Your task to perform on an android device: choose inbox layout in the gmail app Image 0: 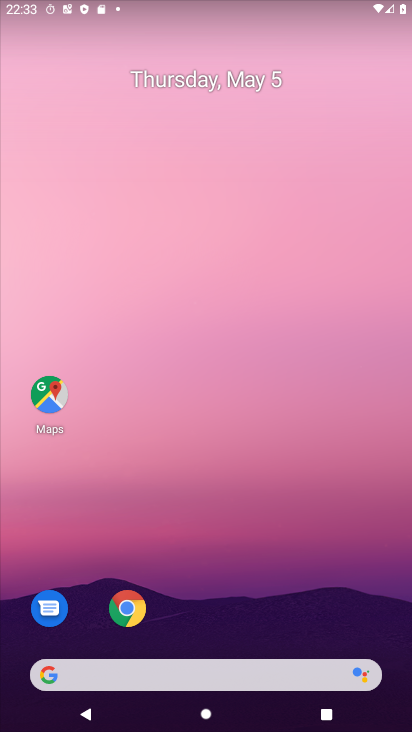
Step 0: drag from (388, 652) to (292, 13)
Your task to perform on an android device: choose inbox layout in the gmail app Image 1: 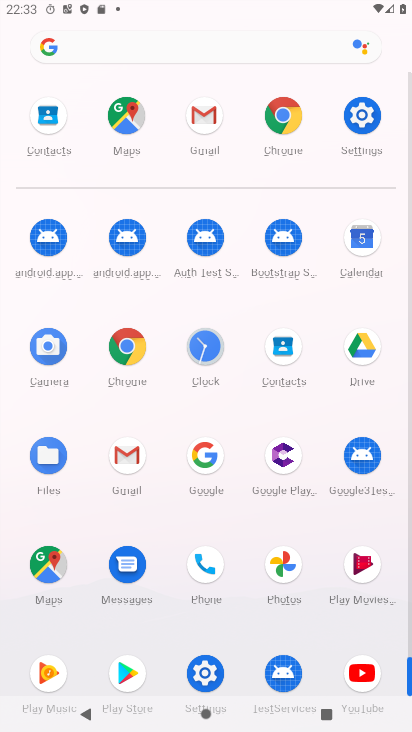
Step 1: click (118, 458)
Your task to perform on an android device: choose inbox layout in the gmail app Image 2: 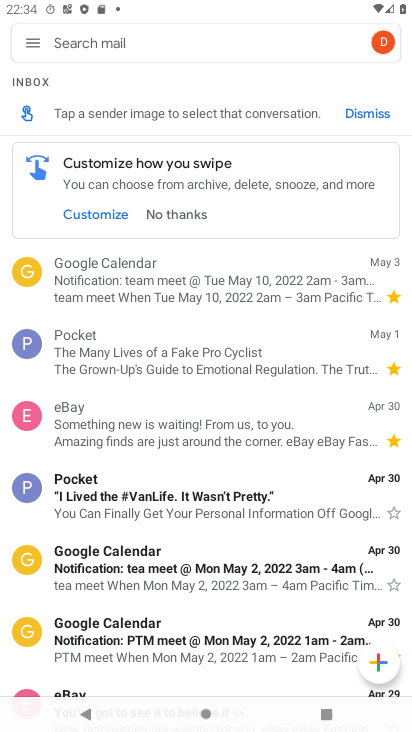
Step 2: click (28, 44)
Your task to perform on an android device: choose inbox layout in the gmail app Image 3: 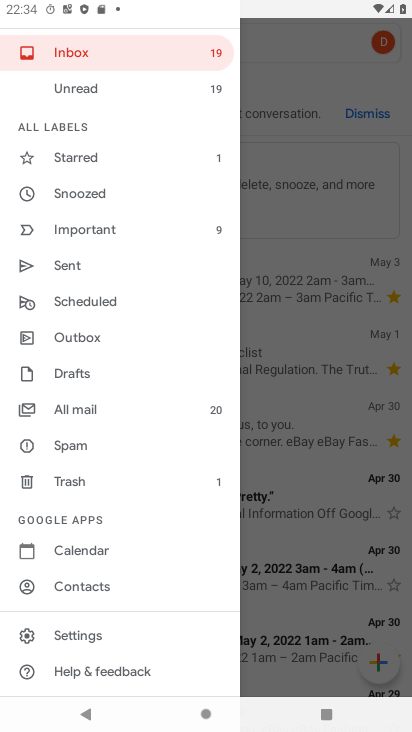
Step 3: click (93, 635)
Your task to perform on an android device: choose inbox layout in the gmail app Image 4: 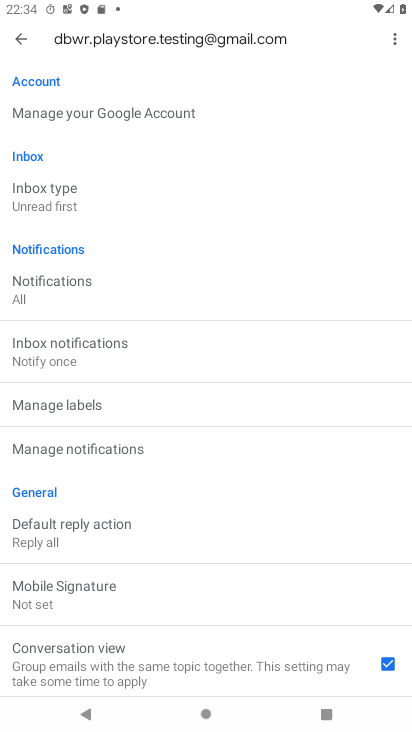
Step 4: click (66, 189)
Your task to perform on an android device: choose inbox layout in the gmail app Image 5: 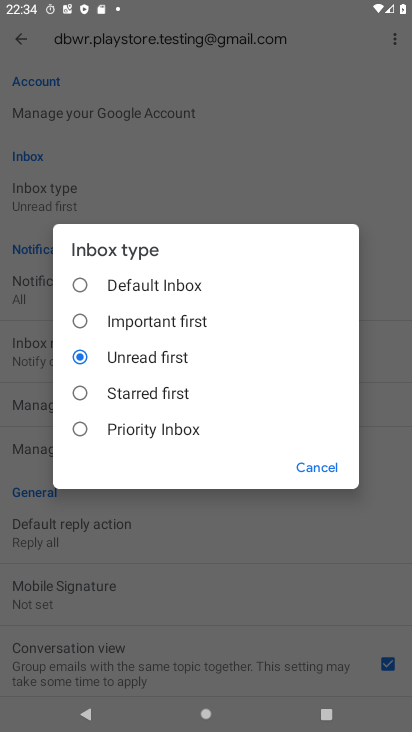
Step 5: click (114, 323)
Your task to perform on an android device: choose inbox layout in the gmail app Image 6: 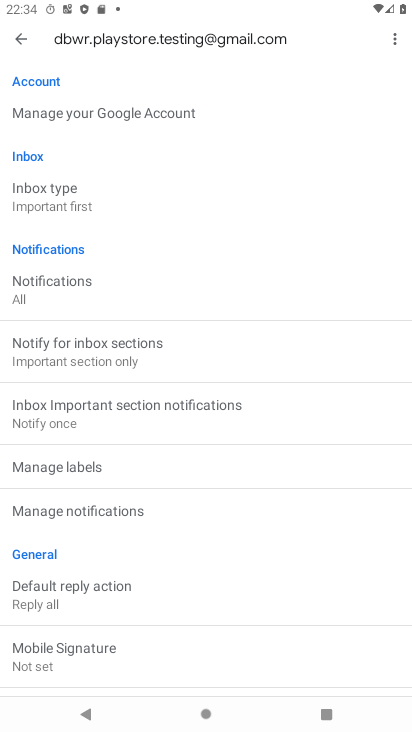
Step 6: task complete